Your task to perform on an android device: change text size in settings app Image 0: 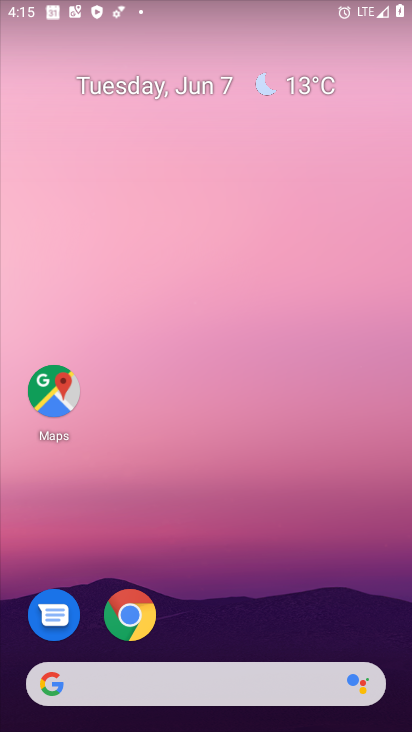
Step 0: drag from (222, 723) to (219, 44)
Your task to perform on an android device: change text size in settings app Image 1: 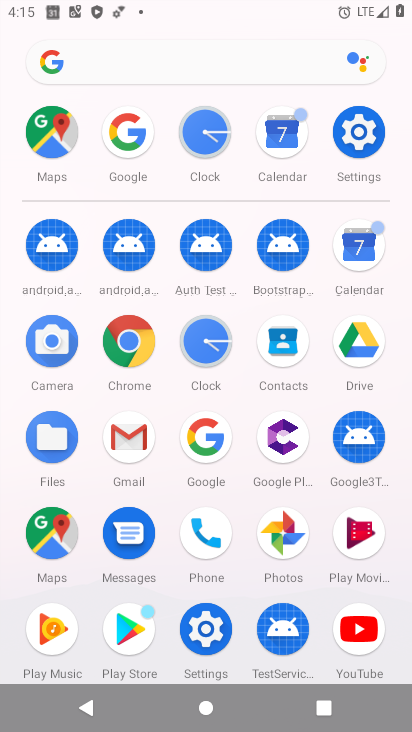
Step 1: click (194, 626)
Your task to perform on an android device: change text size in settings app Image 2: 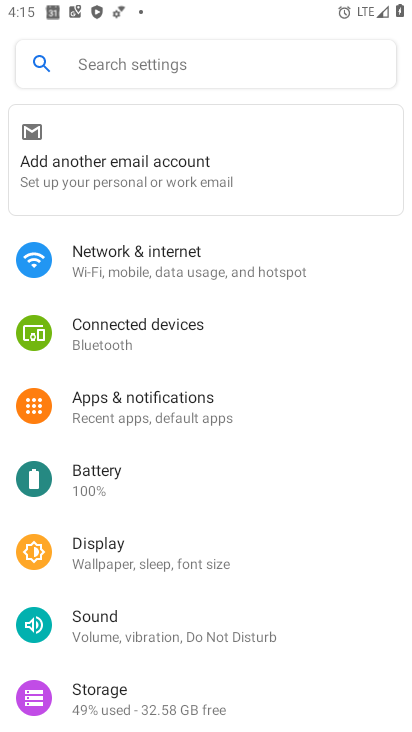
Step 2: drag from (165, 638) to (172, 458)
Your task to perform on an android device: change text size in settings app Image 3: 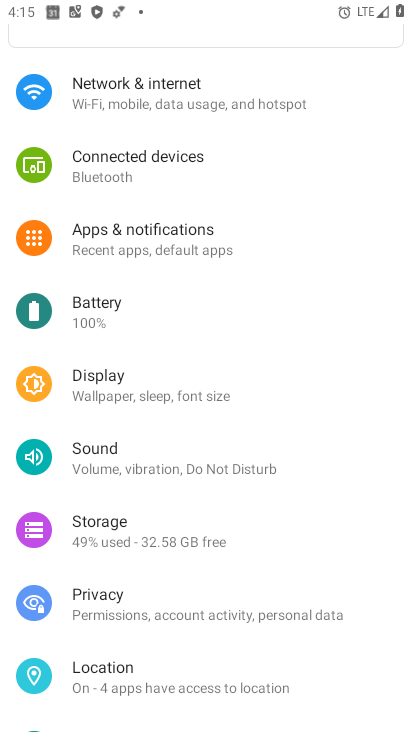
Step 3: click (195, 394)
Your task to perform on an android device: change text size in settings app Image 4: 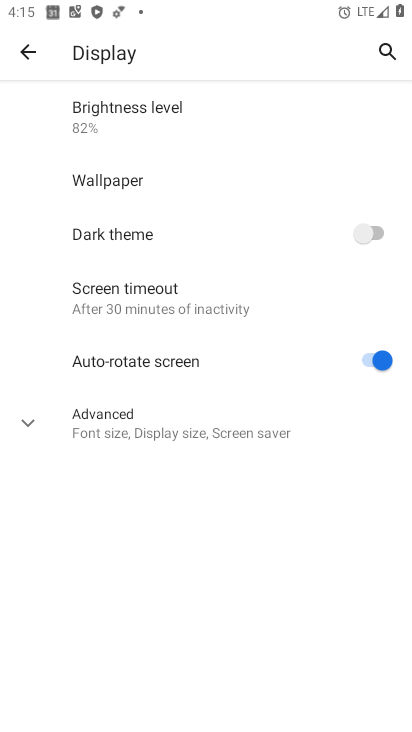
Step 4: click (157, 428)
Your task to perform on an android device: change text size in settings app Image 5: 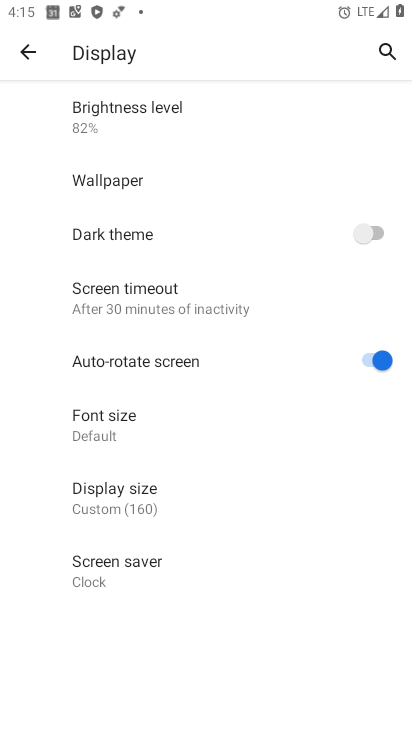
Step 5: click (99, 420)
Your task to perform on an android device: change text size in settings app Image 6: 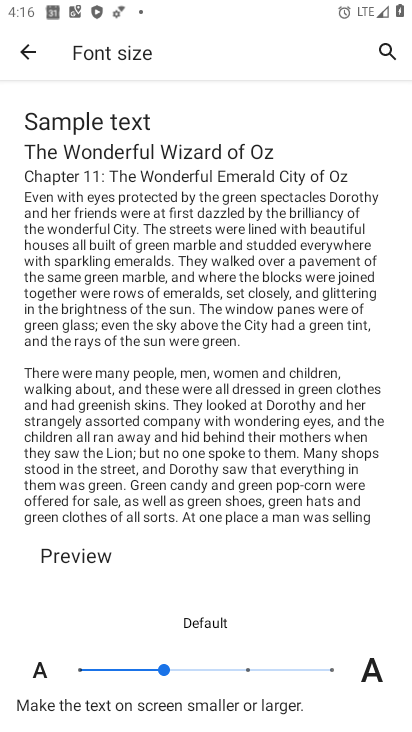
Step 6: click (243, 666)
Your task to perform on an android device: change text size in settings app Image 7: 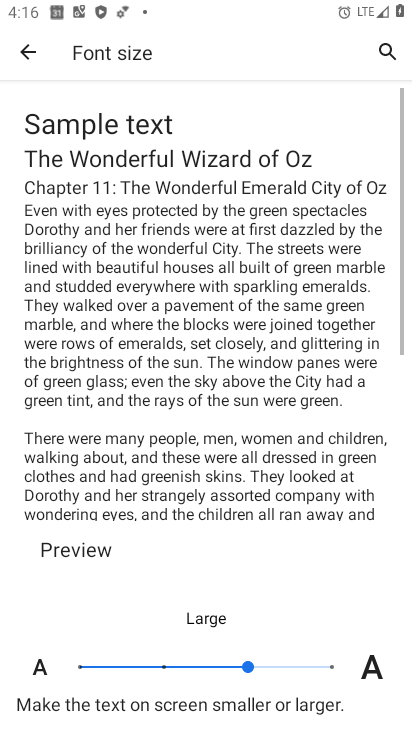
Step 7: task complete